Your task to perform on an android device: open sync settings in chrome Image 0: 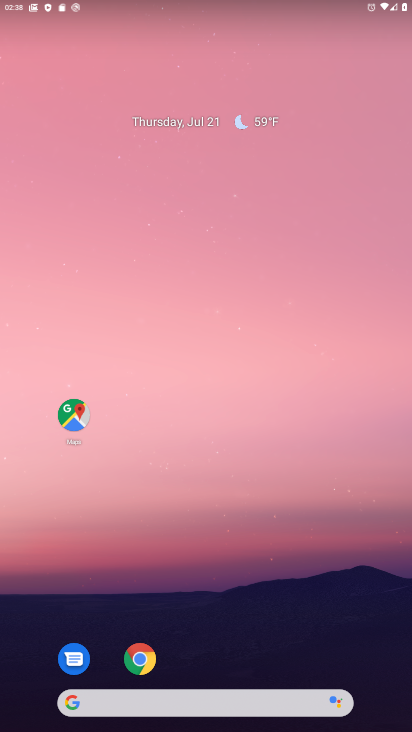
Step 0: drag from (280, 631) to (139, 20)
Your task to perform on an android device: open sync settings in chrome Image 1: 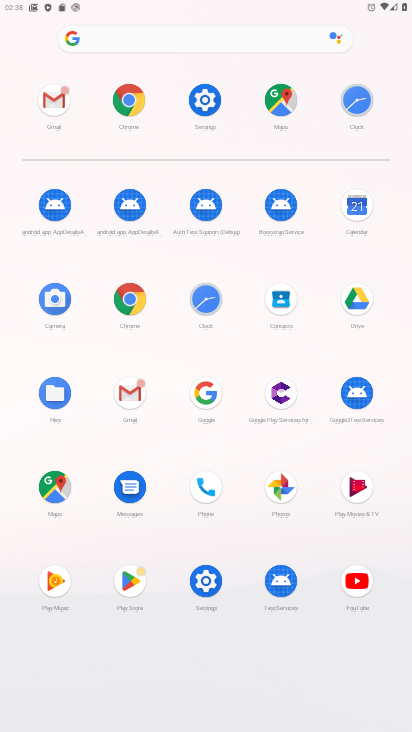
Step 1: click (130, 99)
Your task to perform on an android device: open sync settings in chrome Image 2: 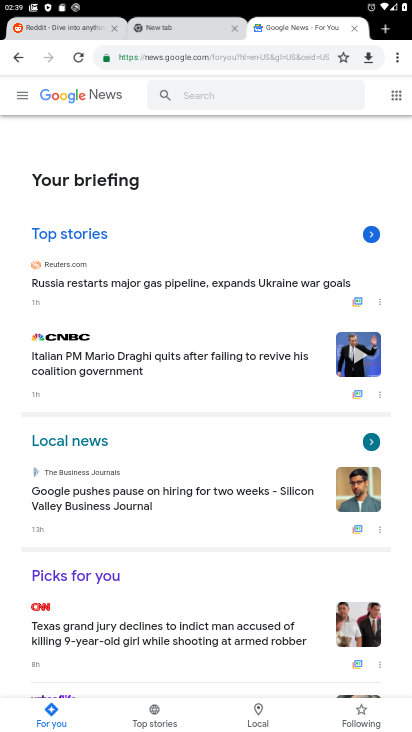
Step 2: drag from (400, 59) to (304, 394)
Your task to perform on an android device: open sync settings in chrome Image 3: 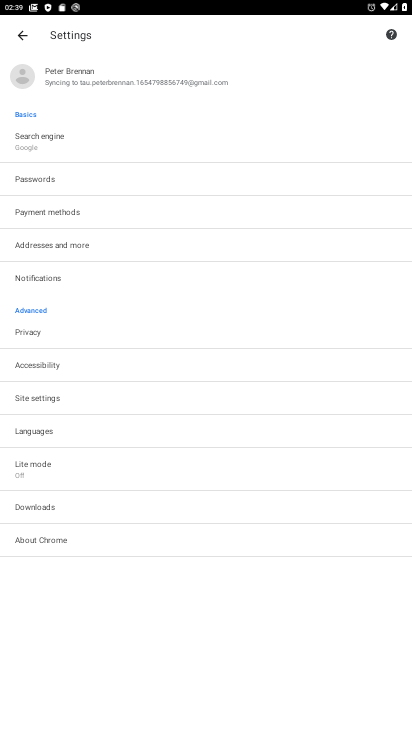
Step 3: click (111, 80)
Your task to perform on an android device: open sync settings in chrome Image 4: 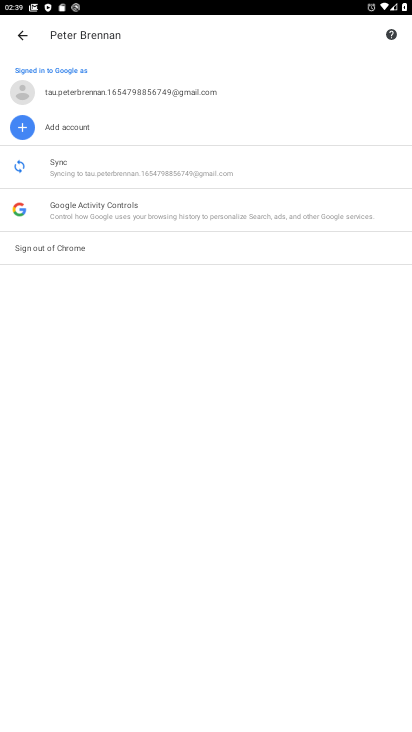
Step 4: click (91, 172)
Your task to perform on an android device: open sync settings in chrome Image 5: 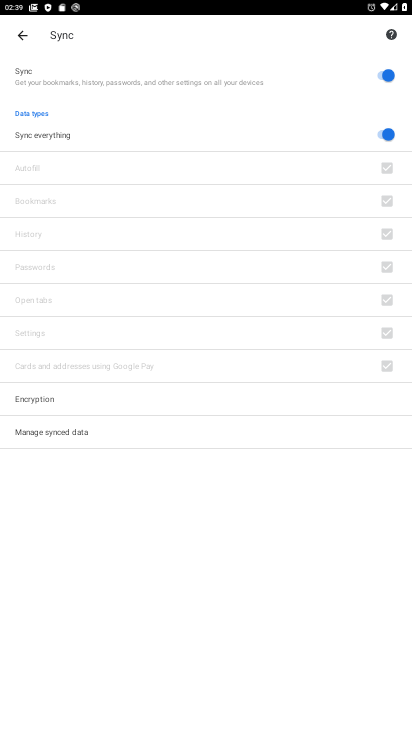
Step 5: task complete